Your task to perform on an android device: toggle javascript in the chrome app Image 0: 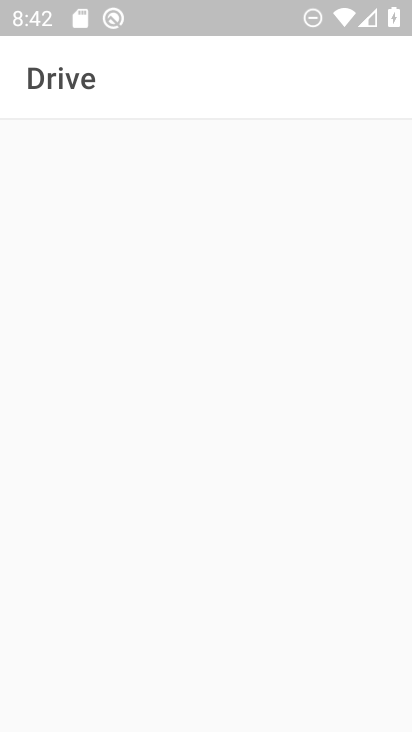
Step 0: press back button
Your task to perform on an android device: toggle javascript in the chrome app Image 1: 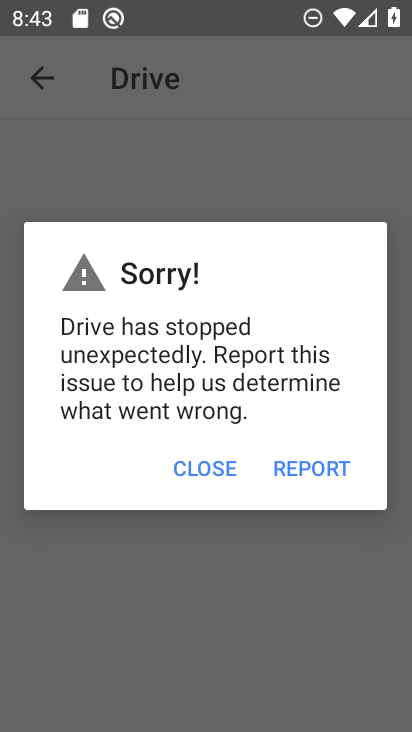
Step 1: press home button
Your task to perform on an android device: toggle javascript in the chrome app Image 2: 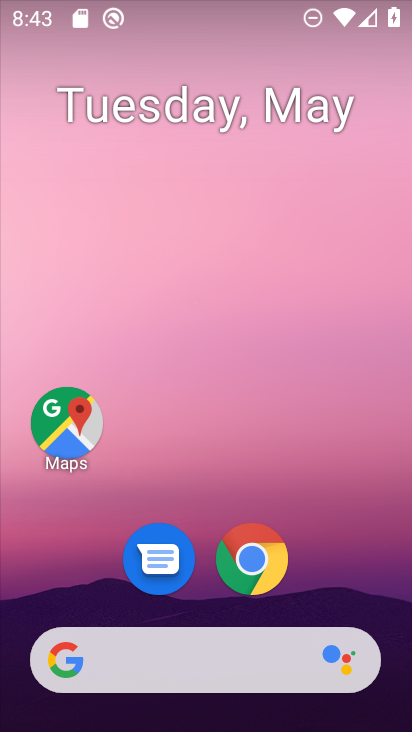
Step 2: click (245, 565)
Your task to perform on an android device: toggle javascript in the chrome app Image 3: 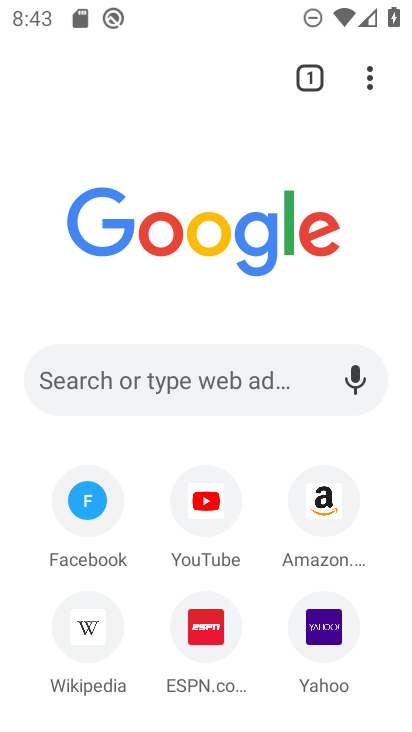
Step 3: drag from (369, 77) to (89, 641)
Your task to perform on an android device: toggle javascript in the chrome app Image 4: 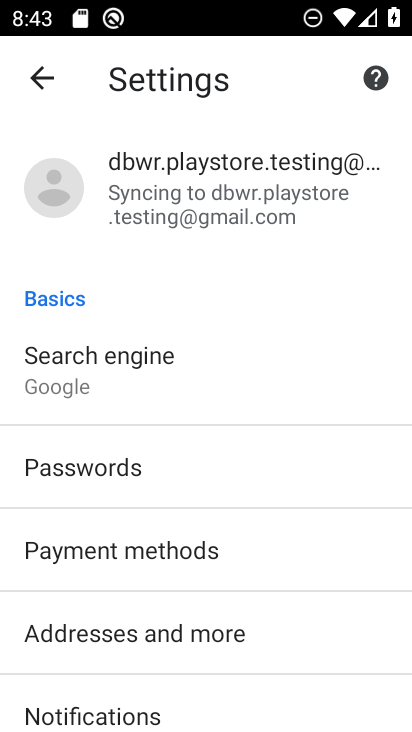
Step 4: drag from (139, 617) to (230, 247)
Your task to perform on an android device: toggle javascript in the chrome app Image 5: 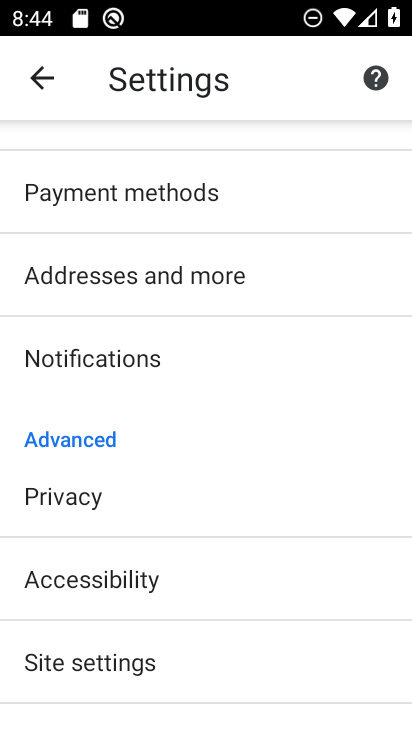
Step 5: click (130, 653)
Your task to perform on an android device: toggle javascript in the chrome app Image 6: 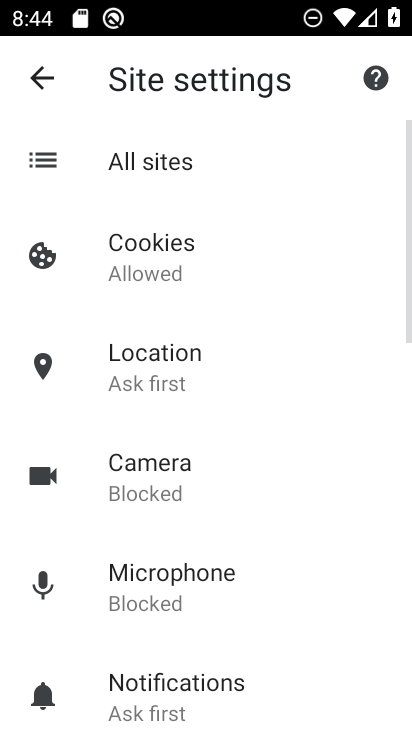
Step 6: drag from (210, 653) to (307, 168)
Your task to perform on an android device: toggle javascript in the chrome app Image 7: 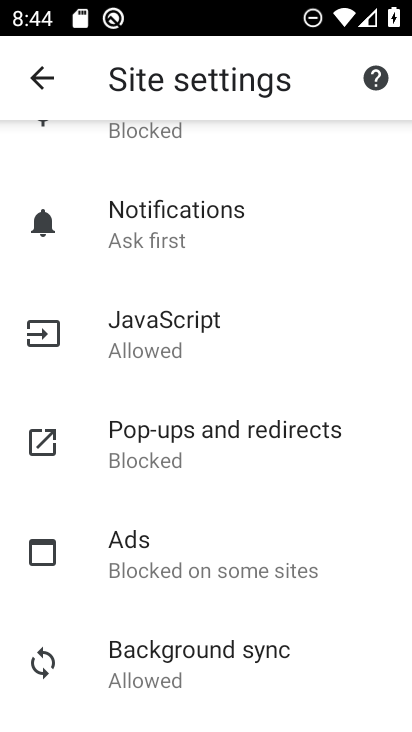
Step 7: click (177, 343)
Your task to perform on an android device: toggle javascript in the chrome app Image 8: 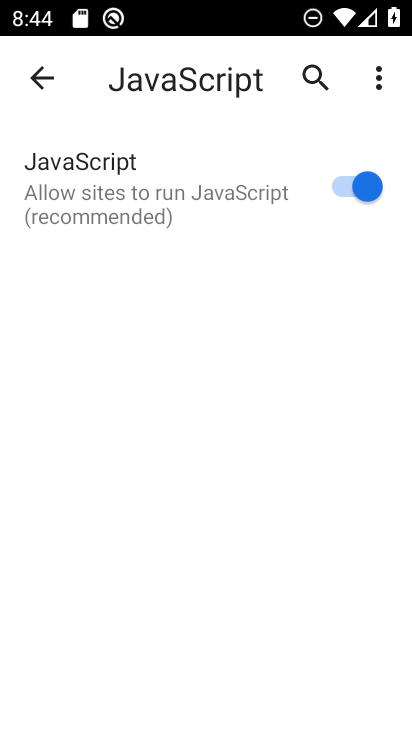
Step 8: click (355, 188)
Your task to perform on an android device: toggle javascript in the chrome app Image 9: 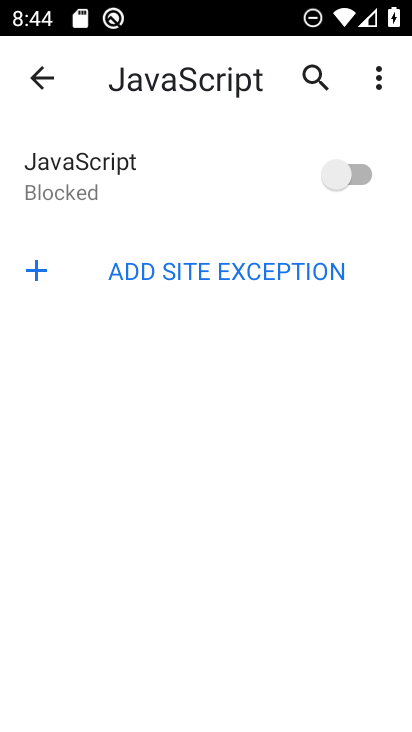
Step 9: task complete